Your task to perform on an android device: allow notifications from all sites in the chrome app Image 0: 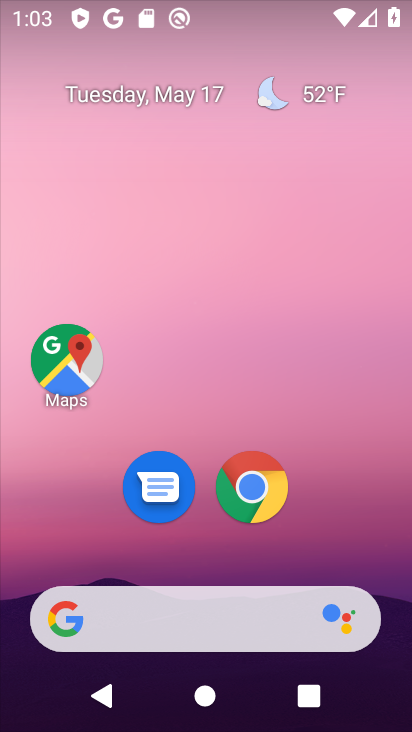
Step 0: press home button
Your task to perform on an android device: allow notifications from all sites in the chrome app Image 1: 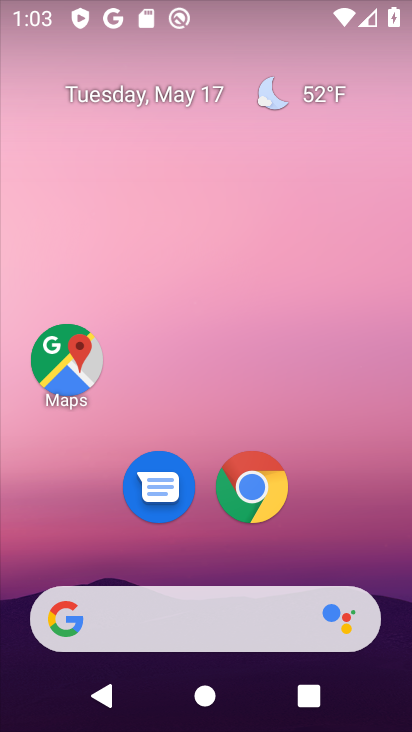
Step 1: press home button
Your task to perform on an android device: allow notifications from all sites in the chrome app Image 2: 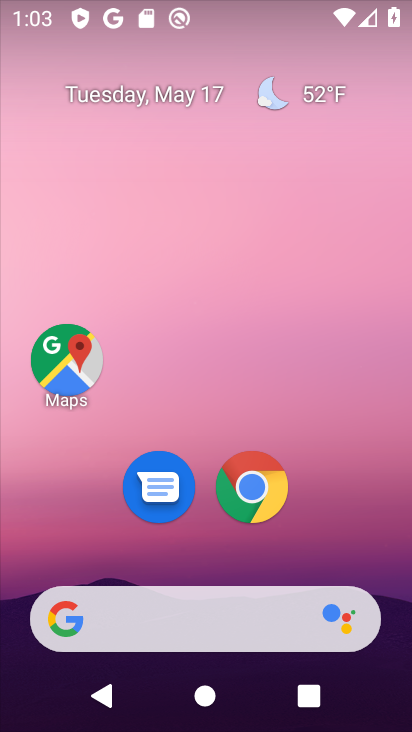
Step 2: click (236, 514)
Your task to perform on an android device: allow notifications from all sites in the chrome app Image 3: 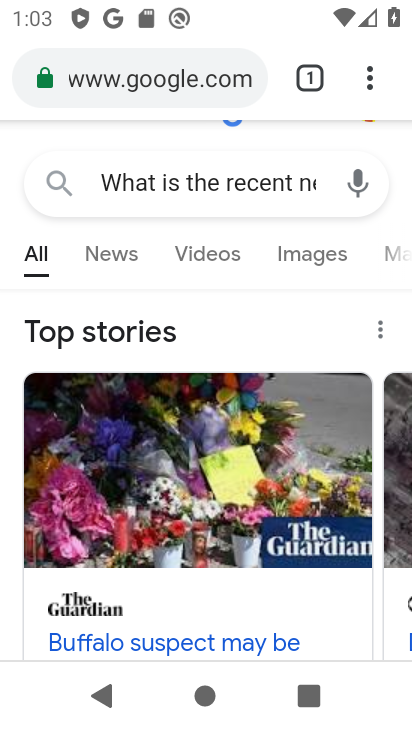
Step 3: drag from (372, 82) to (168, 553)
Your task to perform on an android device: allow notifications from all sites in the chrome app Image 4: 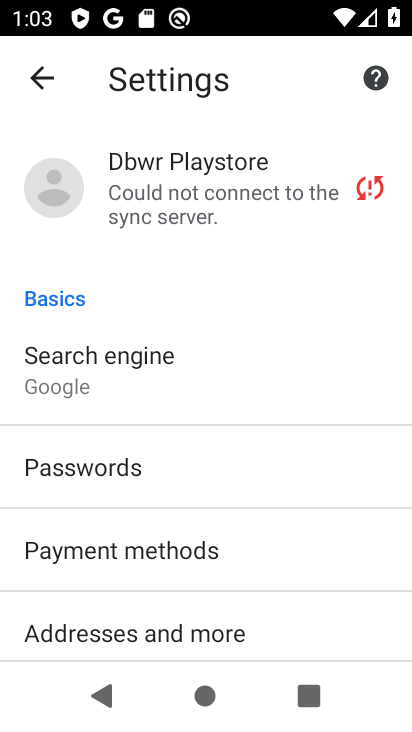
Step 4: drag from (254, 596) to (256, 159)
Your task to perform on an android device: allow notifications from all sites in the chrome app Image 5: 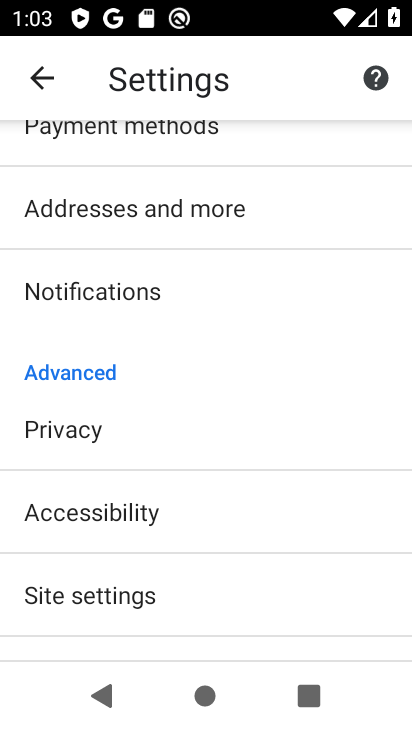
Step 5: click (249, 612)
Your task to perform on an android device: allow notifications from all sites in the chrome app Image 6: 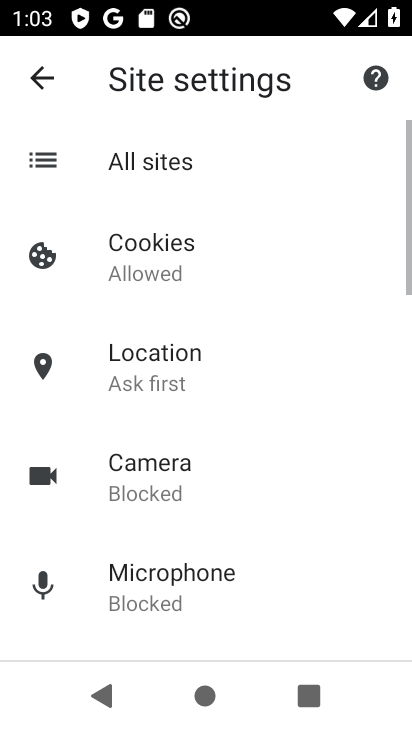
Step 6: drag from (224, 537) to (227, 167)
Your task to perform on an android device: allow notifications from all sites in the chrome app Image 7: 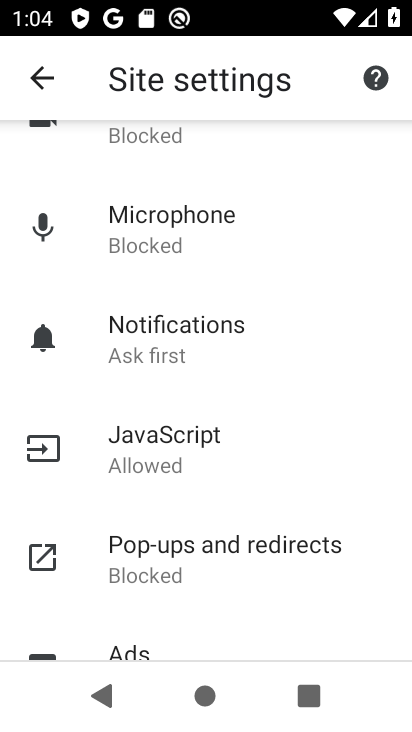
Step 7: drag from (202, 416) to (172, 277)
Your task to perform on an android device: allow notifications from all sites in the chrome app Image 8: 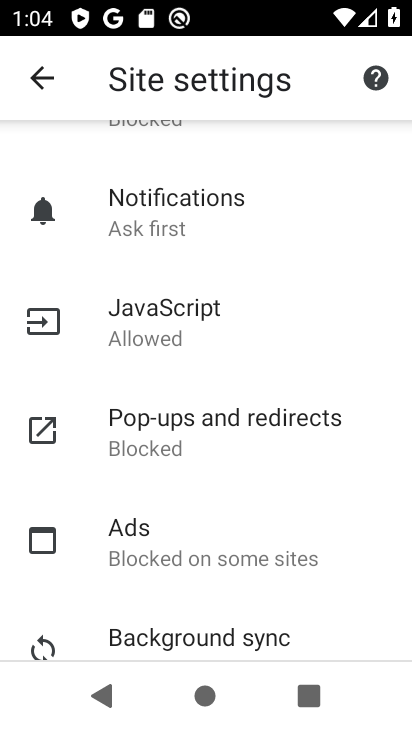
Step 8: click (173, 188)
Your task to perform on an android device: allow notifications from all sites in the chrome app Image 9: 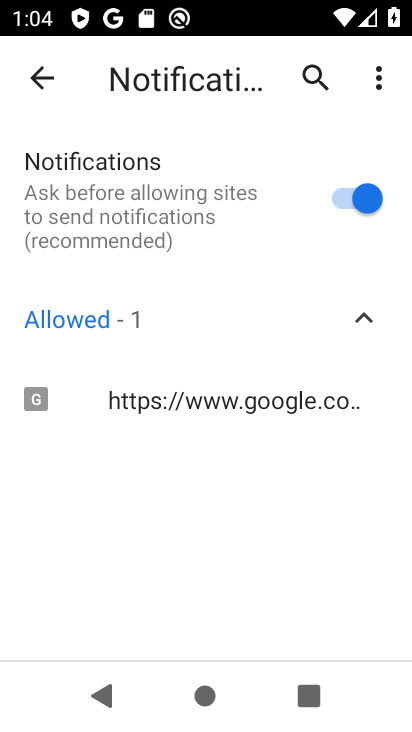
Step 9: click (207, 400)
Your task to perform on an android device: allow notifications from all sites in the chrome app Image 10: 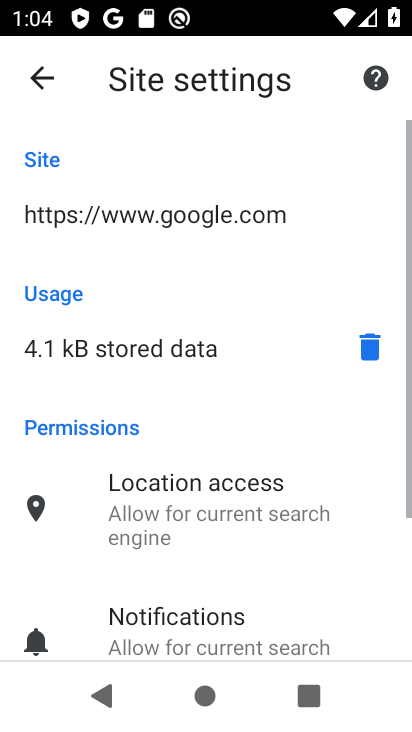
Step 10: drag from (207, 400) to (176, 252)
Your task to perform on an android device: allow notifications from all sites in the chrome app Image 11: 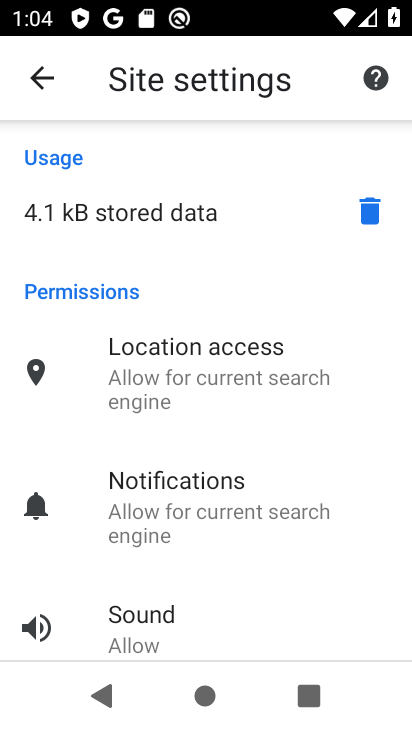
Step 11: click (237, 522)
Your task to perform on an android device: allow notifications from all sites in the chrome app Image 12: 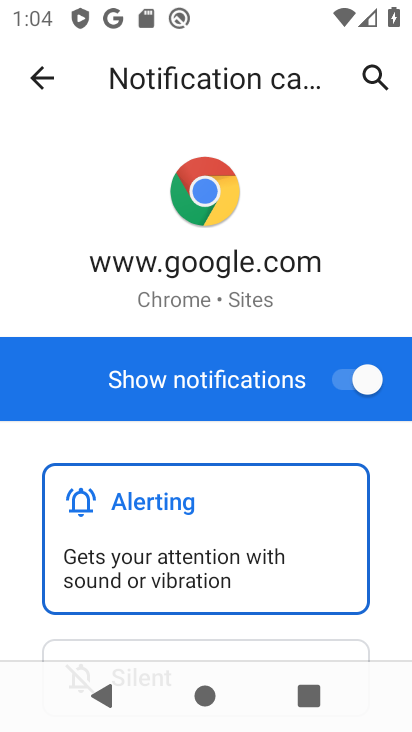
Step 12: drag from (243, 434) to (257, 5)
Your task to perform on an android device: allow notifications from all sites in the chrome app Image 13: 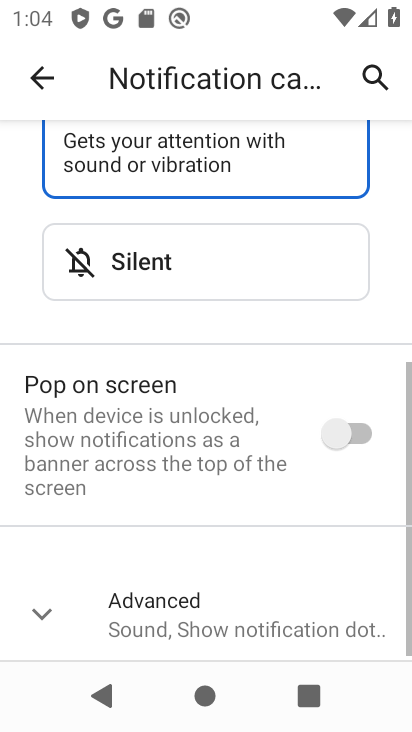
Step 13: drag from (227, 490) to (237, 168)
Your task to perform on an android device: allow notifications from all sites in the chrome app Image 14: 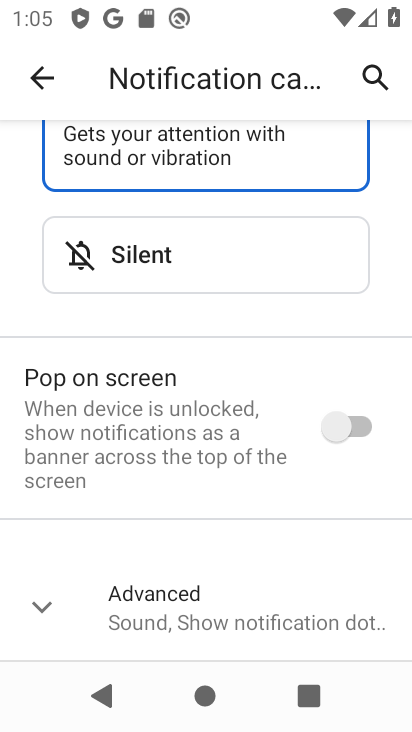
Step 14: click (122, 572)
Your task to perform on an android device: allow notifications from all sites in the chrome app Image 15: 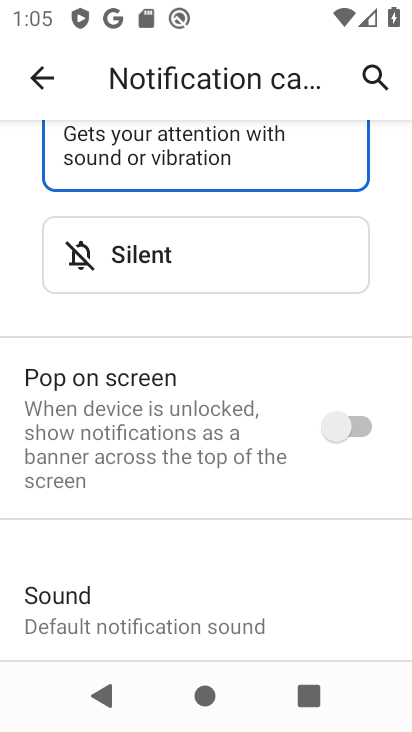
Step 15: click (324, 430)
Your task to perform on an android device: allow notifications from all sites in the chrome app Image 16: 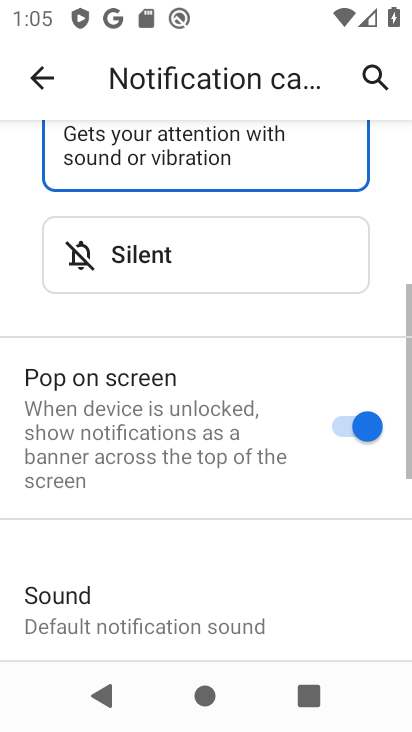
Step 16: drag from (260, 345) to (214, 43)
Your task to perform on an android device: allow notifications from all sites in the chrome app Image 17: 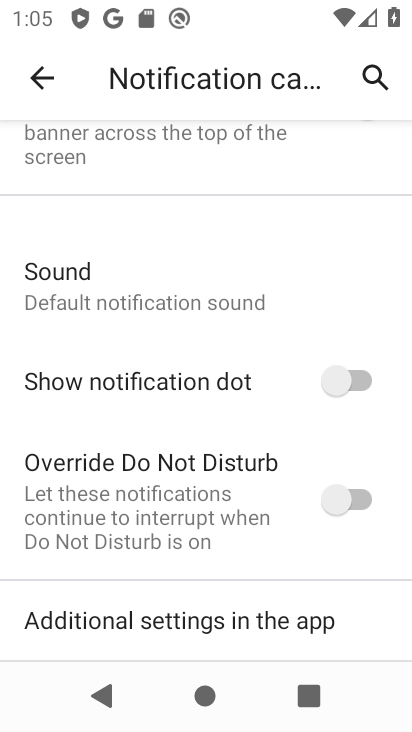
Step 17: click (355, 379)
Your task to perform on an android device: allow notifications from all sites in the chrome app Image 18: 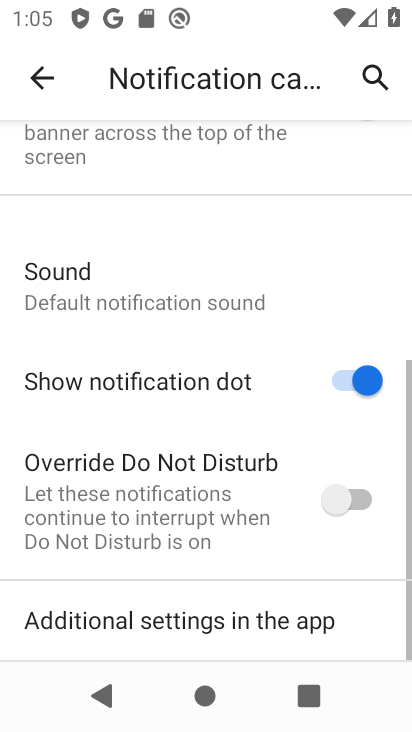
Step 18: click (370, 483)
Your task to perform on an android device: allow notifications from all sites in the chrome app Image 19: 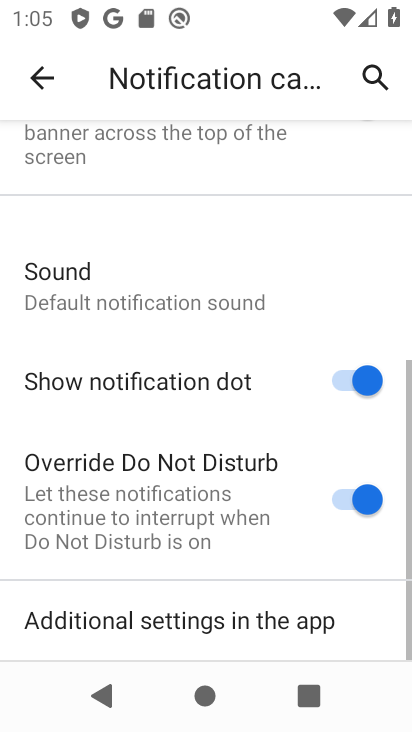
Step 19: task complete